Your task to perform on an android device: toggle translation in the chrome app Image 0: 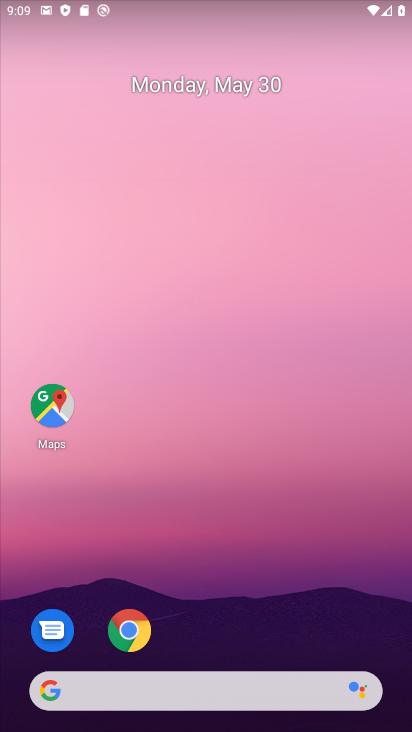
Step 0: task complete